Your task to perform on an android device: change timer sound Image 0: 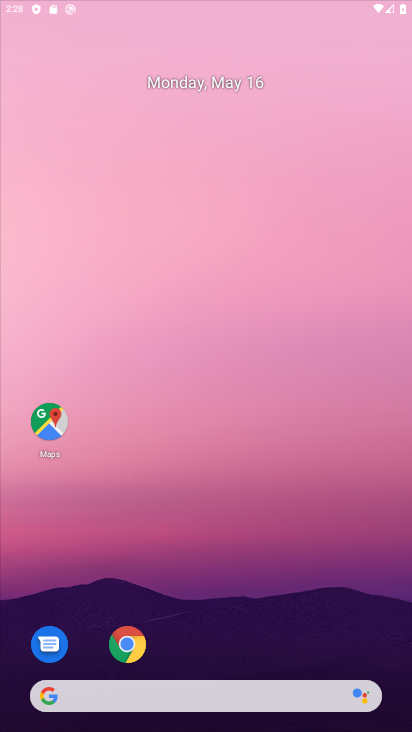
Step 0: drag from (255, 649) to (285, 130)
Your task to perform on an android device: change timer sound Image 1: 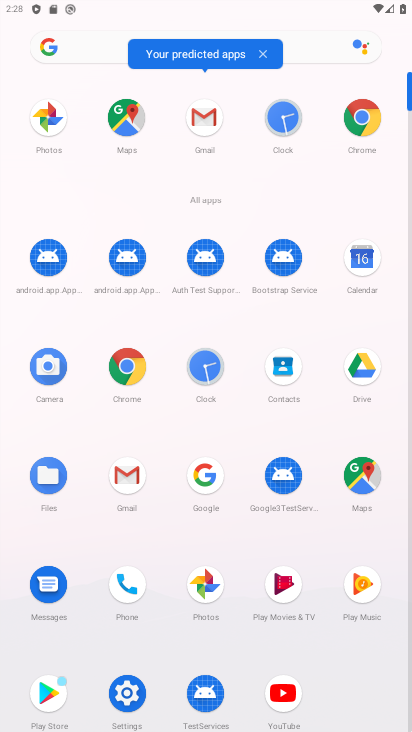
Step 1: click (204, 378)
Your task to perform on an android device: change timer sound Image 2: 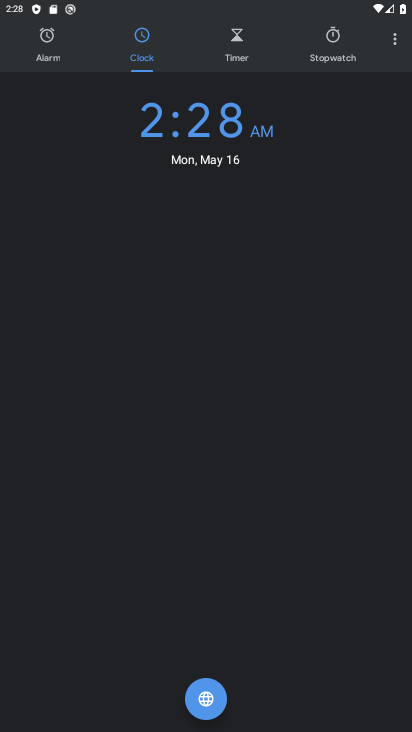
Step 2: click (390, 46)
Your task to perform on an android device: change timer sound Image 3: 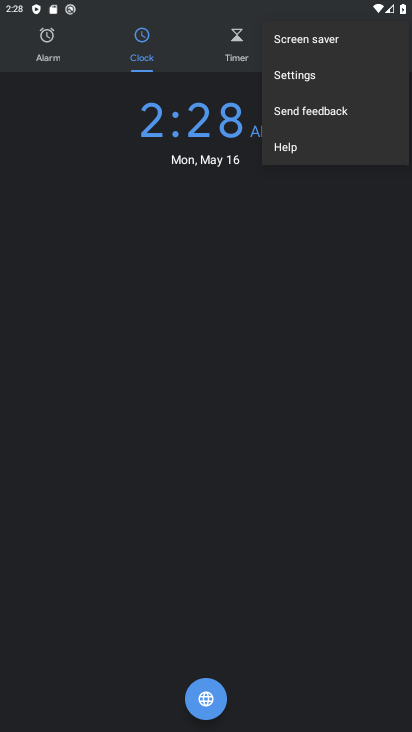
Step 3: click (322, 84)
Your task to perform on an android device: change timer sound Image 4: 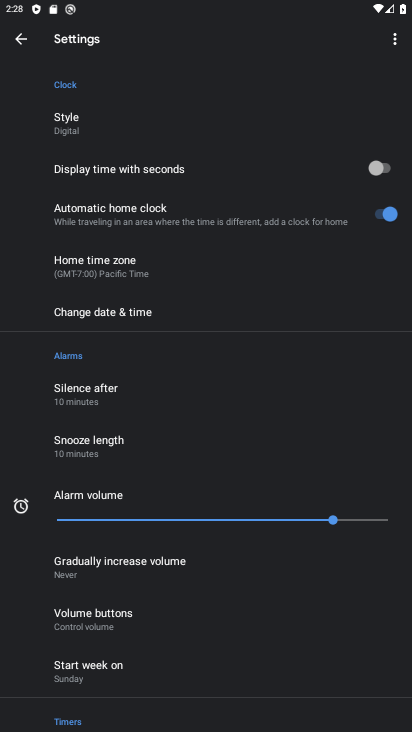
Step 4: drag from (193, 623) to (221, 341)
Your task to perform on an android device: change timer sound Image 5: 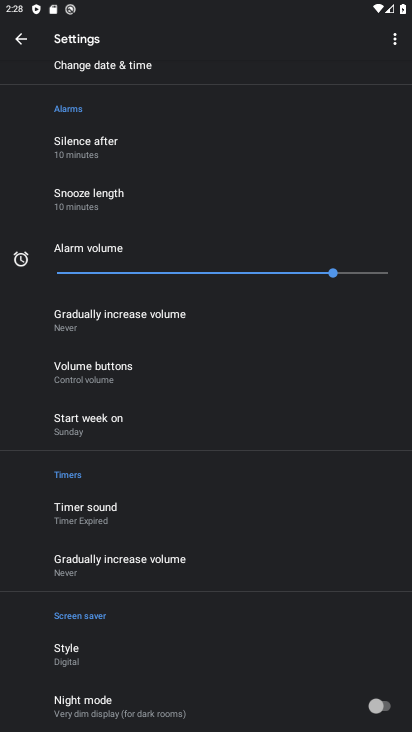
Step 5: click (113, 520)
Your task to perform on an android device: change timer sound Image 6: 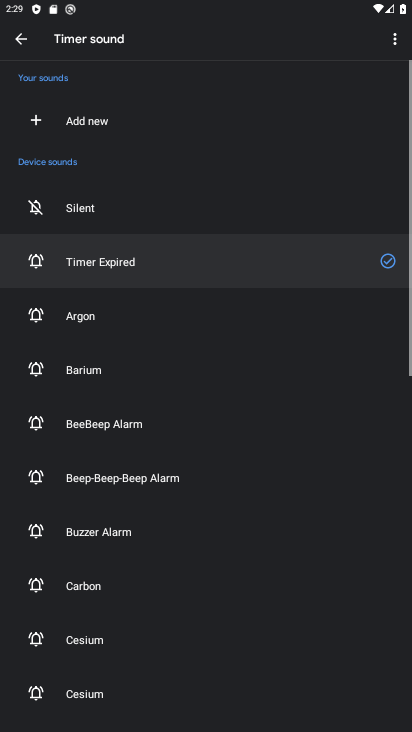
Step 6: click (135, 326)
Your task to perform on an android device: change timer sound Image 7: 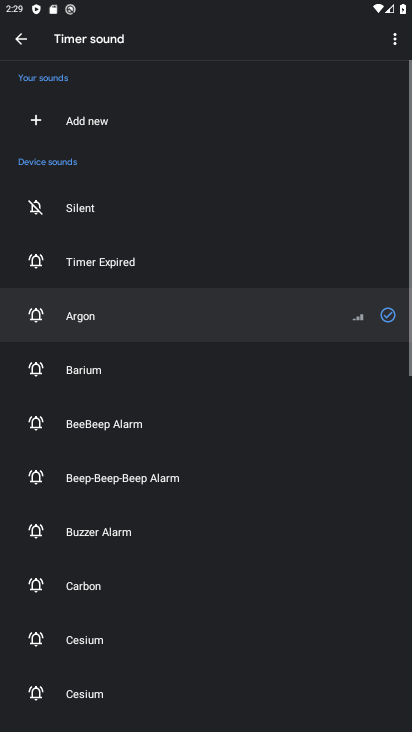
Step 7: task complete